Your task to perform on an android device: Go to Google Image 0: 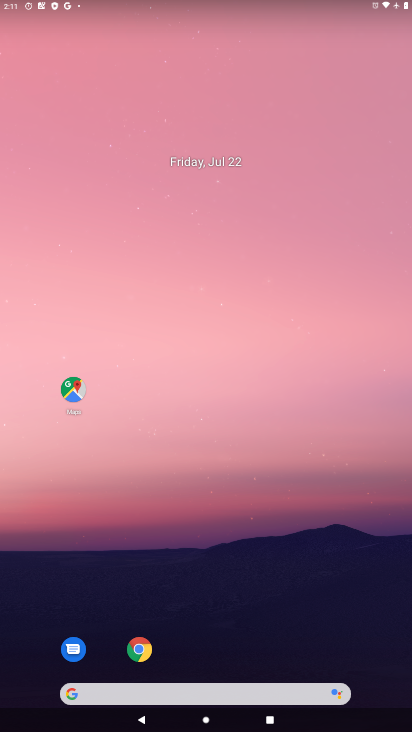
Step 0: drag from (310, 633) to (303, 86)
Your task to perform on an android device: Go to Google Image 1: 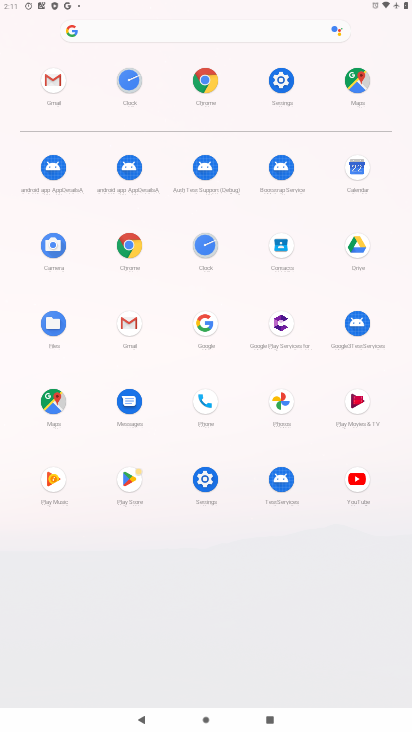
Step 1: click (205, 325)
Your task to perform on an android device: Go to Google Image 2: 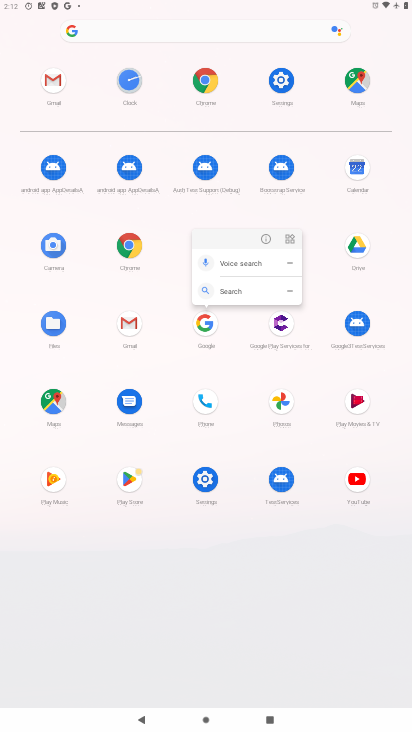
Step 2: click (205, 325)
Your task to perform on an android device: Go to Google Image 3: 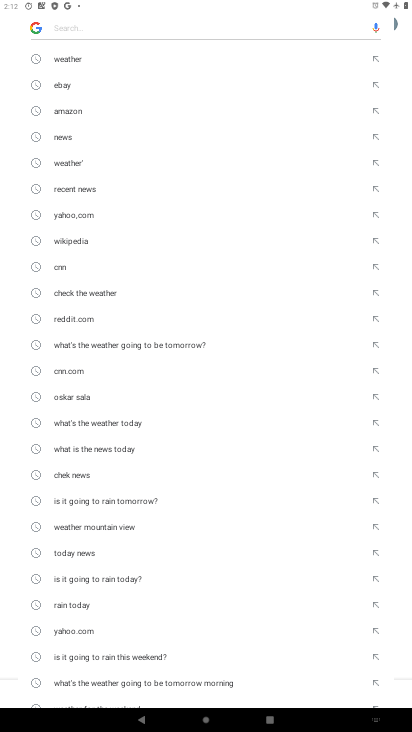
Step 3: task complete